Your task to perform on an android device: Go to Android settings Image 0: 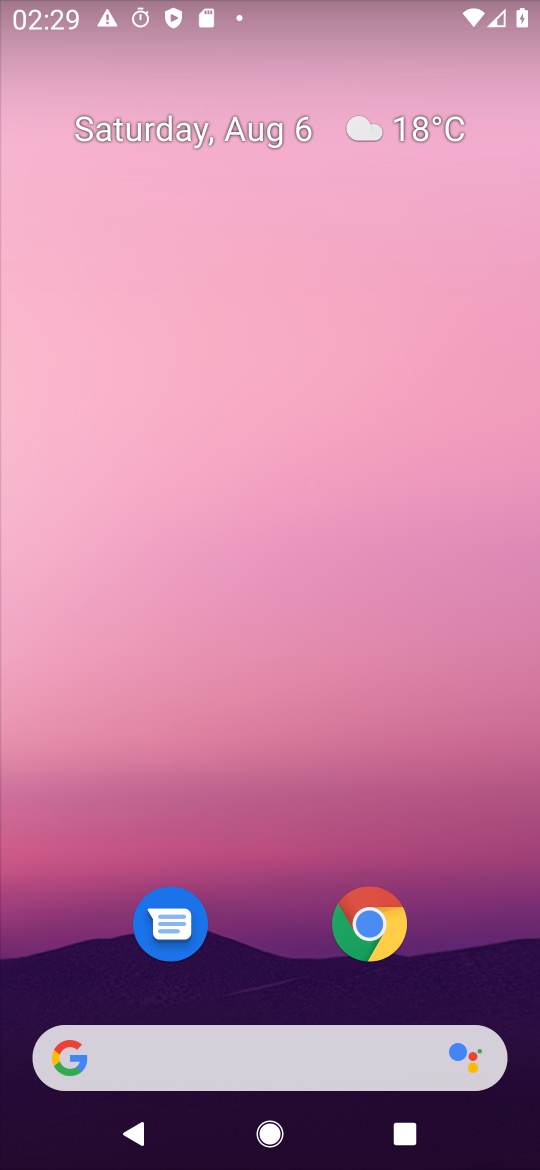
Step 0: drag from (316, 1070) to (328, 407)
Your task to perform on an android device: Go to Android settings Image 1: 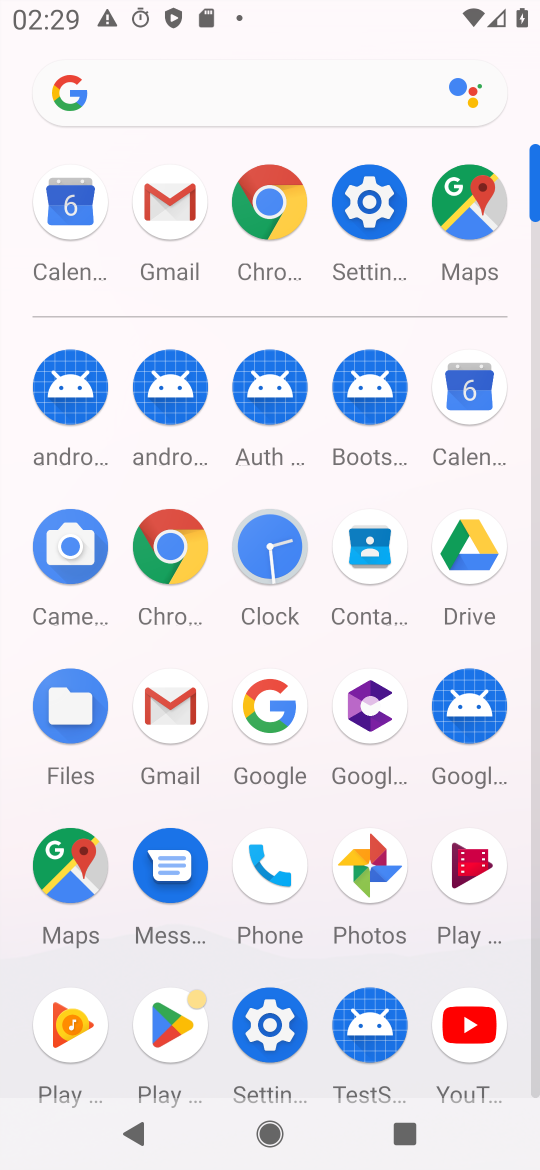
Step 1: click (352, 231)
Your task to perform on an android device: Go to Android settings Image 2: 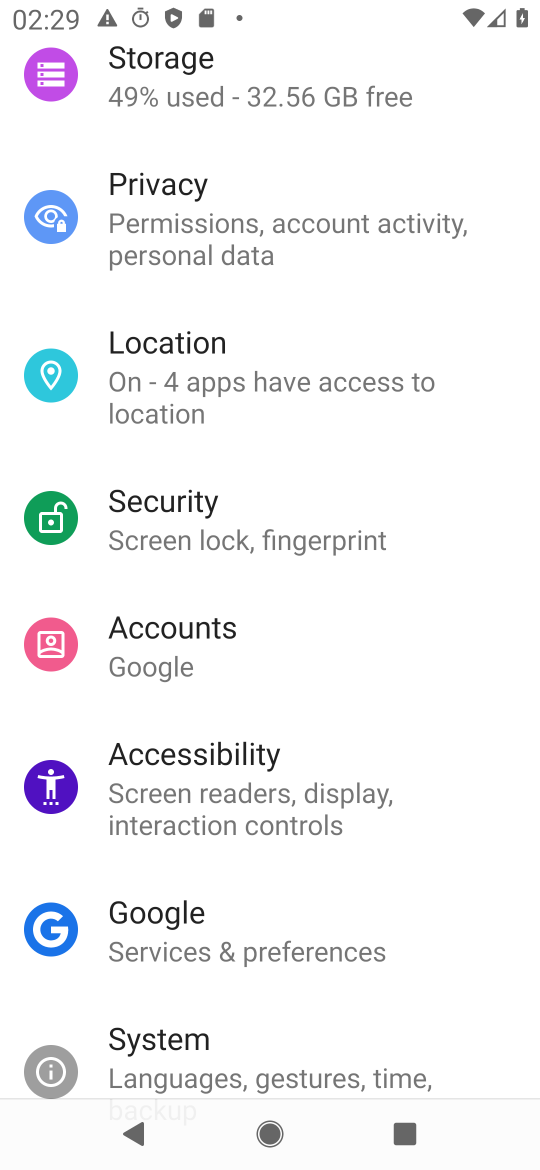
Step 2: drag from (478, 262) to (488, 955)
Your task to perform on an android device: Go to Android settings Image 3: 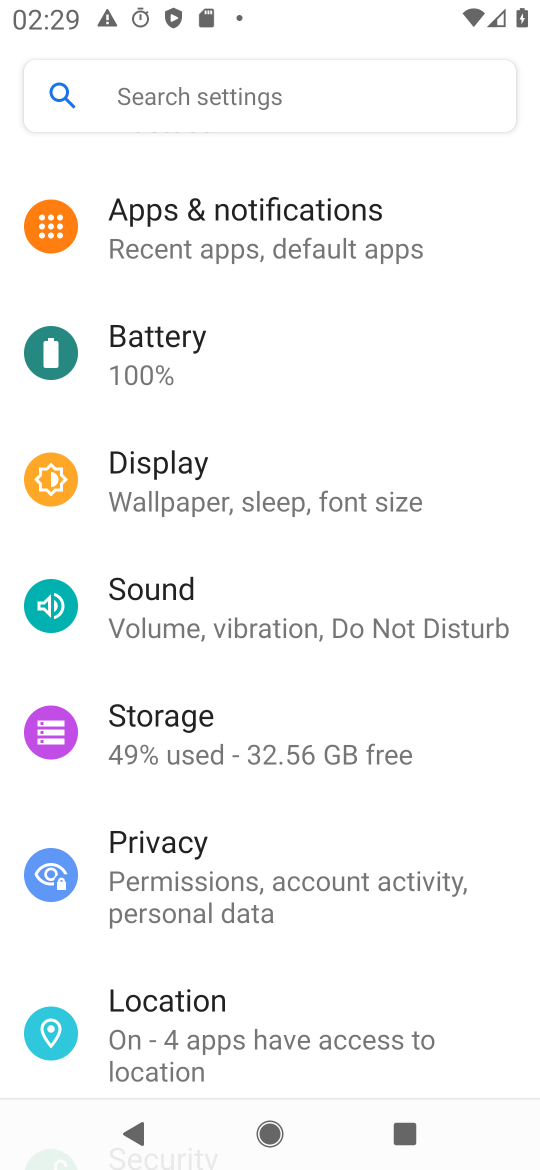
Step 3: drag from (473, 1021) to (519, 352)
Your task to perform on an android device: Go to Android settings Image 4: 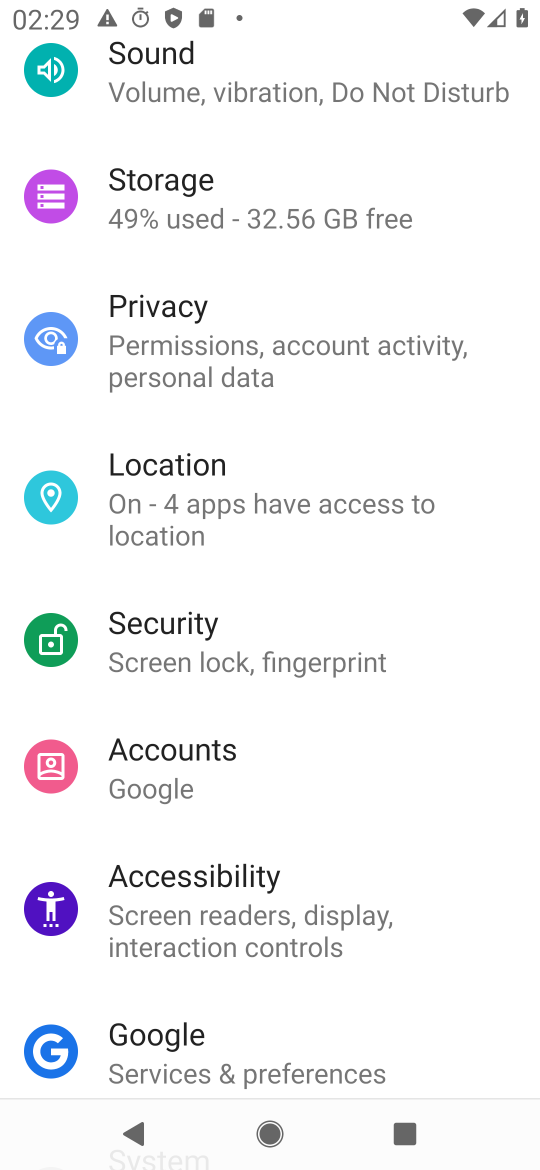
Step 4: drag from (434, 1008) to (503, 319)
Your task to perform on an android device: Go to Android settings Image 5: 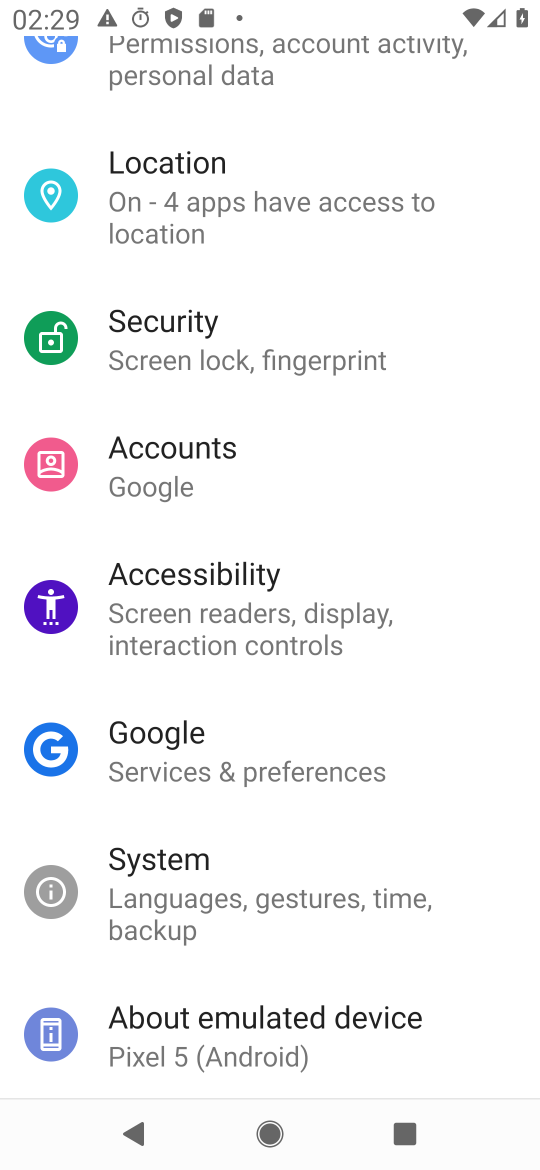
Step 5: click (305, 1026)
Your task to perform on an android device: Go to Android settings Image 6: 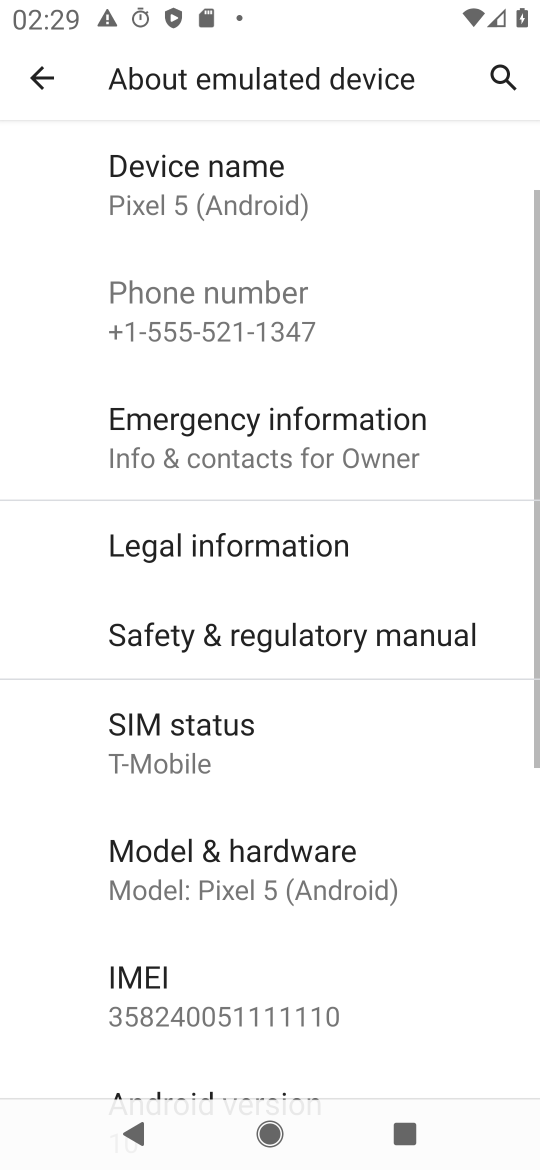
Step 6: task complete